Your task to perform on an android device: Go to Google Image 0: 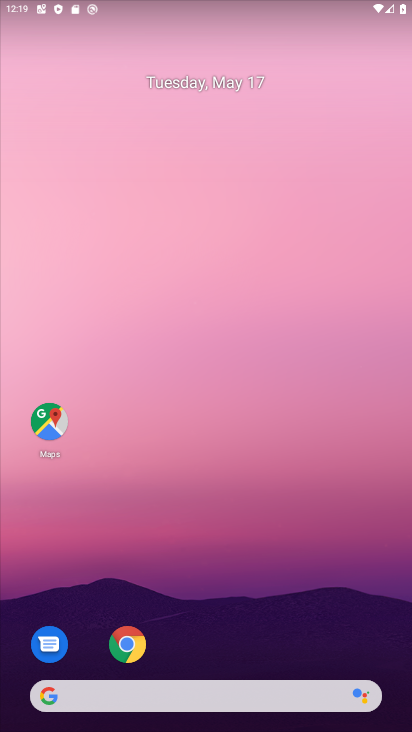
Step 0: drag from (239, 664) to (369, 51)
Your task to perform on an android device: Go to Google Image 1: 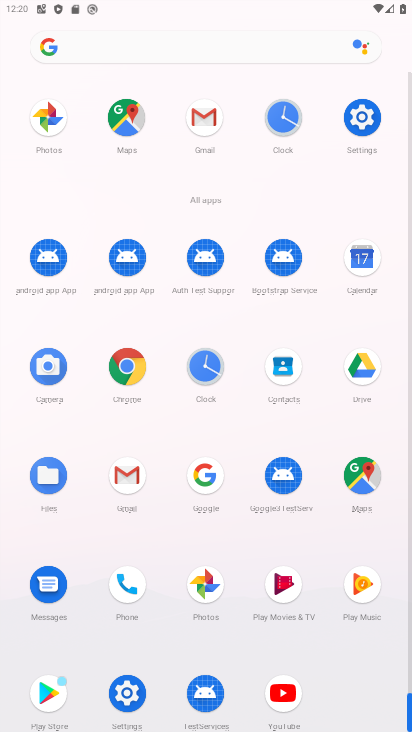
Step 1: click (209, 469)
Your task to perform on an android device: Go to Google Image 2: 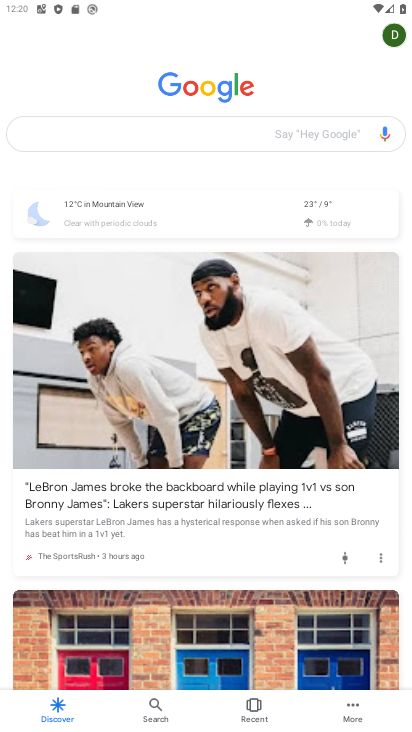
Step 2: task complete